Your task to perform on an android device: Find coffee shops on Maps Image 0: 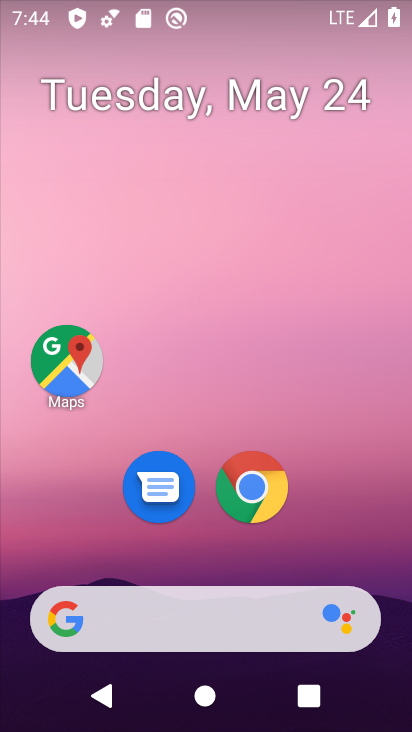
Step 0: click (64, 362)
Your task to perform on an android device: Find coffee shops on Maps Image 1: 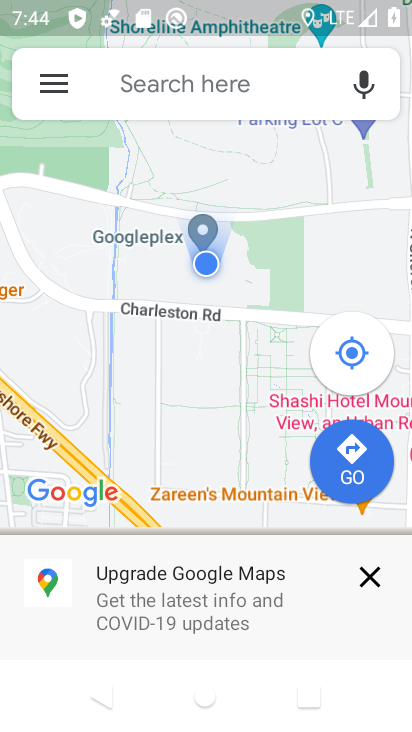
Step 1: click (372, 571)
Your task to perform on an android device: Find coffee shops on Maps Image 2: 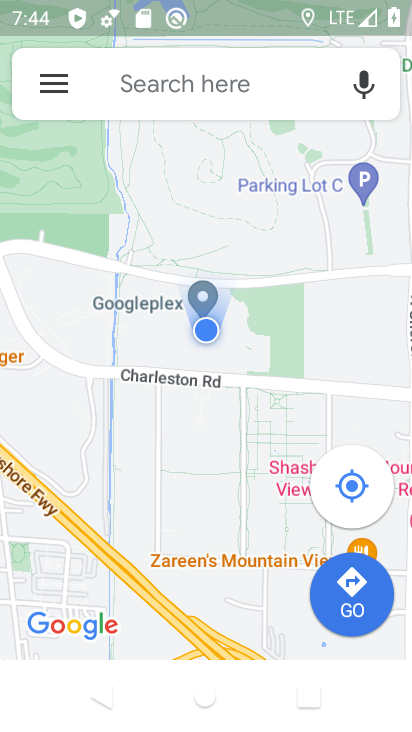
Step 2: click (188, 84)
Your task to perform on an android device: Find coffee shops on Maps Image 3: 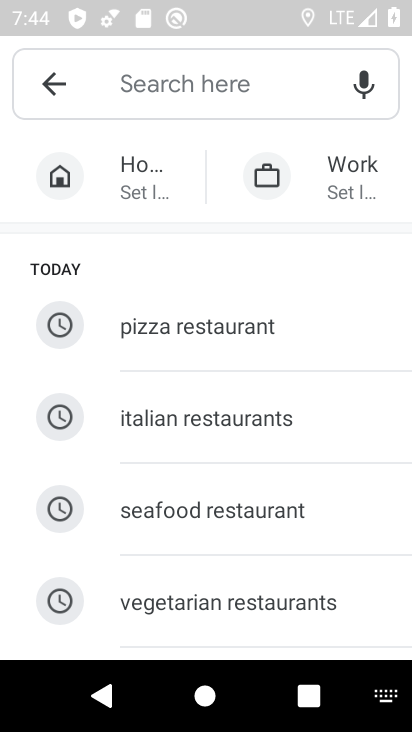
Step 3: type "coffee"
Your task to perform on an android device: Find coffee shops on Maps Image 4: 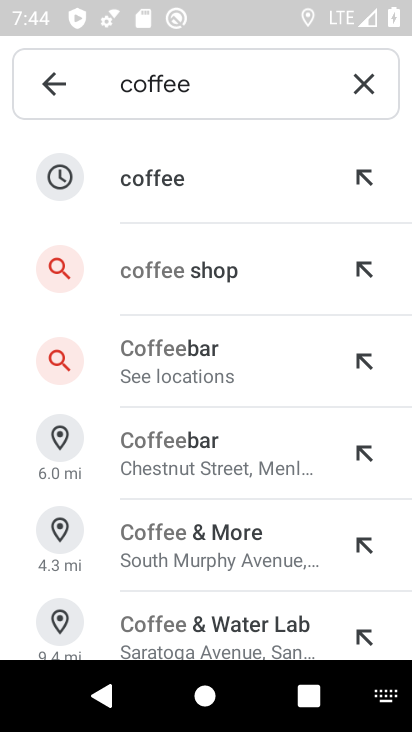
Step 4: click (148, 270)
Your task to perform on an android device: Find coffee shops on Maps Image 5: 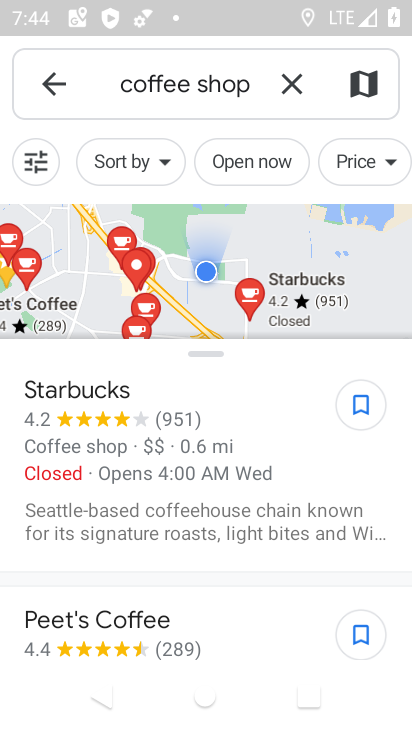
Step 5: task complete